Your task to perform on an android device: turn off wifi Image 0: 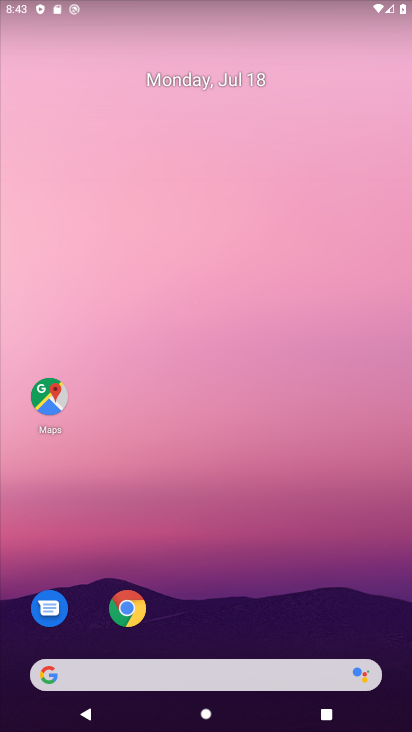
Step 0: drag from (51, 691) to (401, 305)
Your task to perform on an android device: turn off wifi Image 1: 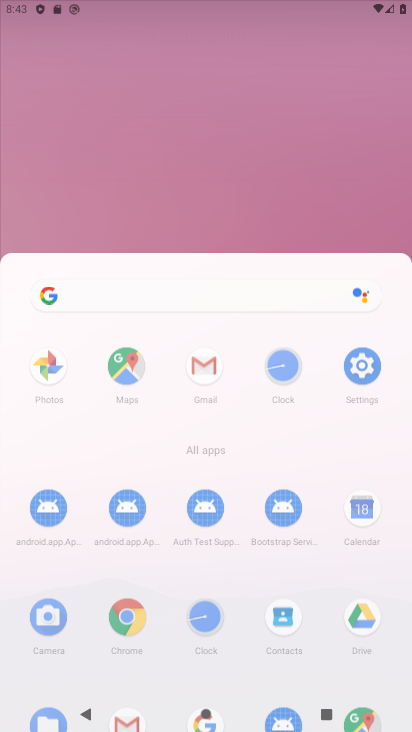
Step 1: click (128, 701)
Your task to perform on an android device: turn off wifi Image 2: 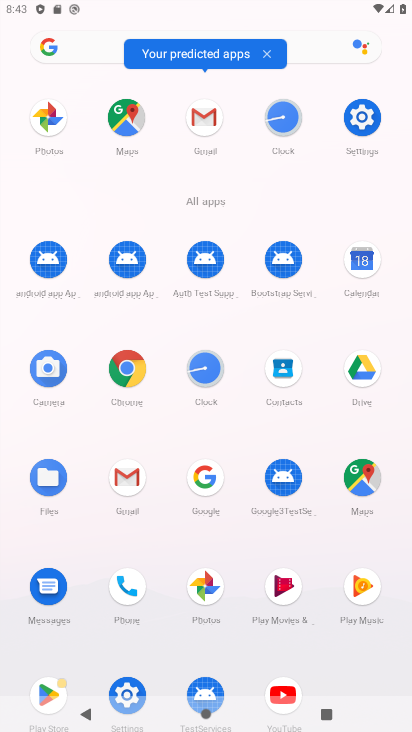
Step 2: click (137, 686)
Your task to perform on an android device: turn off wifi Image 3: 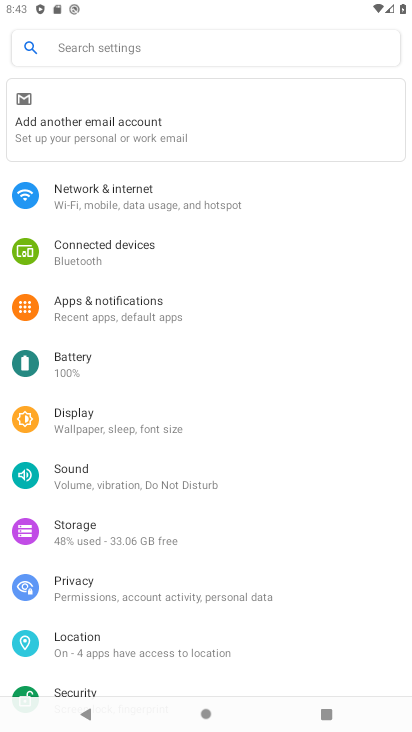
Step 3: click (173, 204)
Your task to perform on an android device: turn off wifi Image 4: 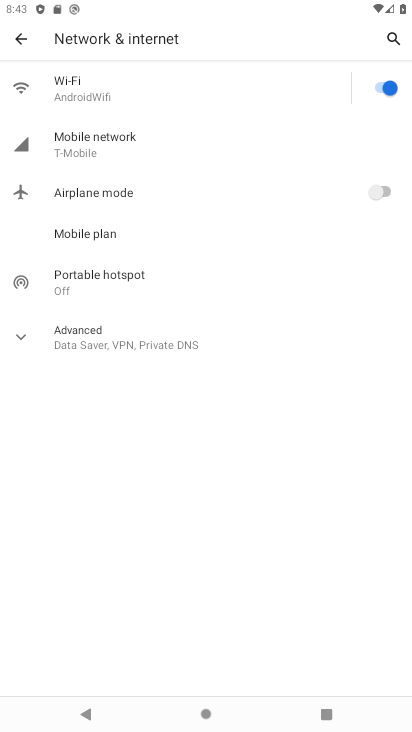
Step 4: click (389, 95)
Your task to perform on an android device: turn off wifi Image 5: 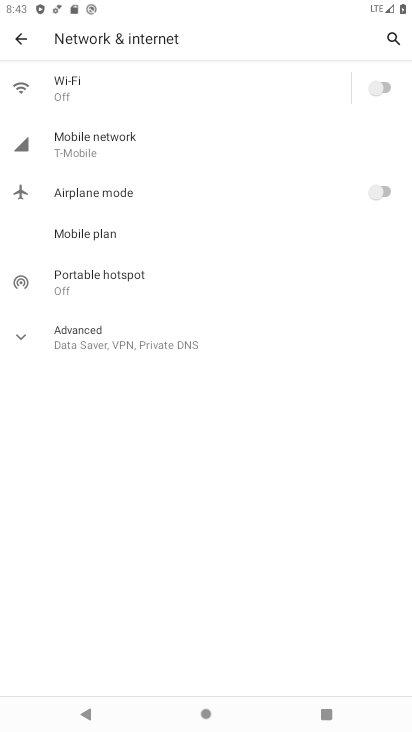
Step 5: task complete